Your task to perform on an android device: turn on javascript in the chrome app Image 0: 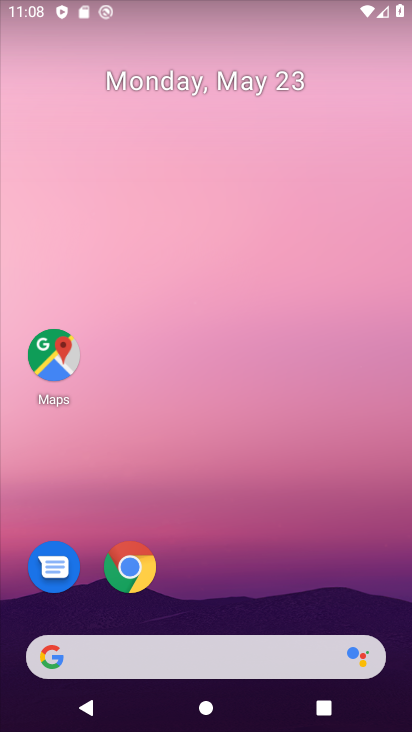
Step 0: drag from (268, 579) to (271, 153)
Your task to perform on an android device: turn on javascript in the chrome app Image 1: 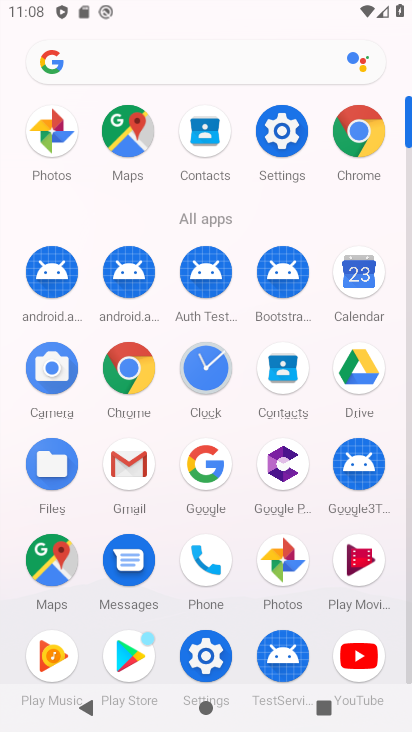
Step 1: click (111, 383)
Your task to perform on an android device: turn on javascript in the chrome app Image 2: 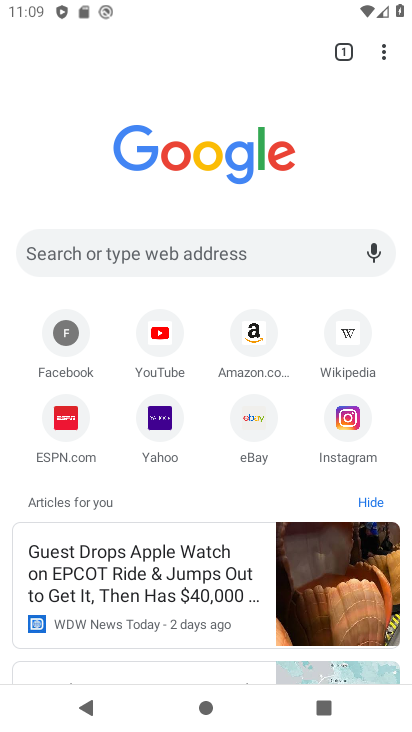
Step 2: drag from (388, 60) to (236, 443)
Your task to perform on an android device: turn on javascript in the chrome app Image 3: 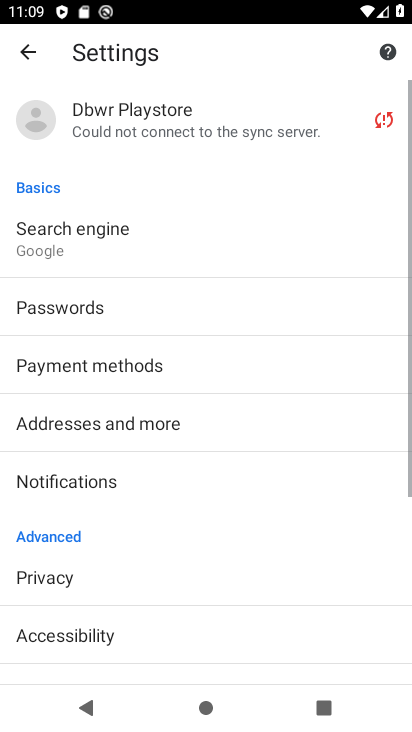
Step 3: drag from (133, 566) to (227, 202)
Your task to perform on an android device: turn on javascript in the chrome app Image 4: 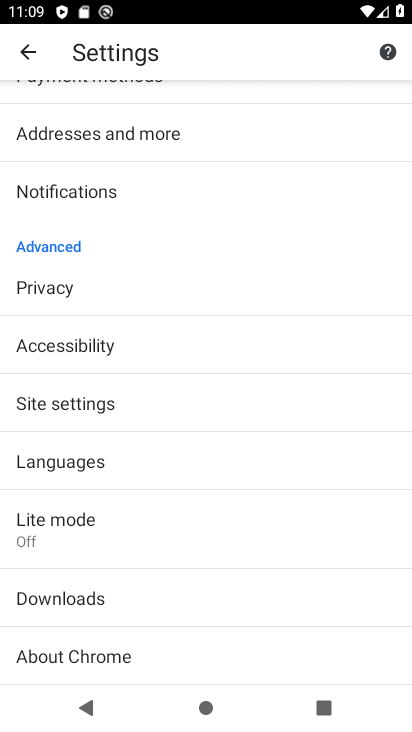
Step 4: click (108, 415)
Your task to perform on an android device: turn on javascript in the chrome app Image 5: 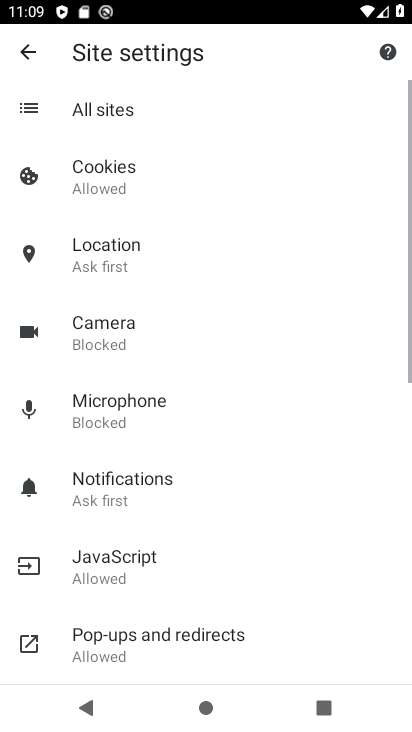
Step 5: click (190, 562)
Your task to perform on an android device: turn on javascript in the chrome app Image 6: 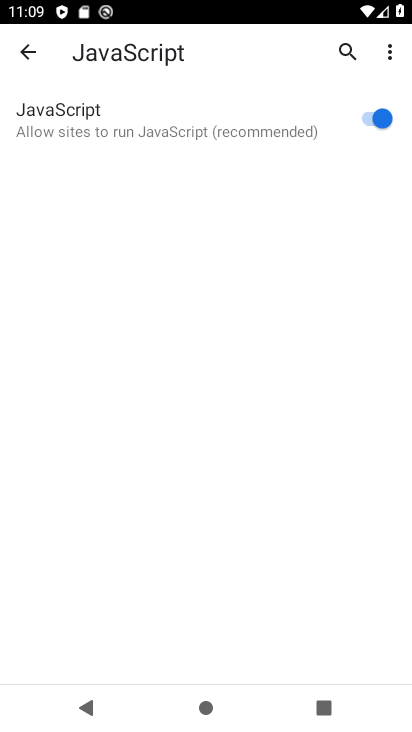
Step 6: task complete